Your task to perform on an android device: Open the phone app and click the voicemail tab. Image 0: 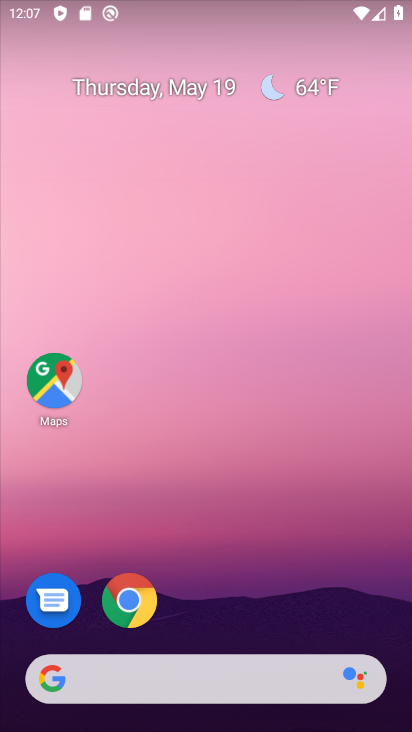
Step 0: drag from (222, 621) to (201, 49)
Your task to perform on an android device: Open the phone app and click the voicemail tab. Image 1: 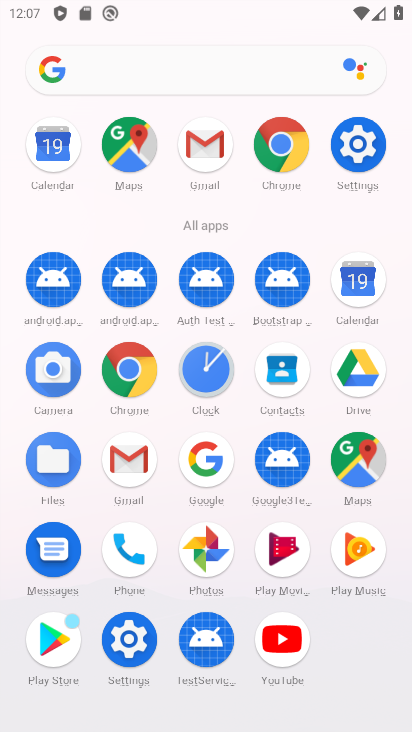
Step 1: click (357, 148)
Your task to perform on an android device: Open the phone app and click the voicemail tab. Image 2: 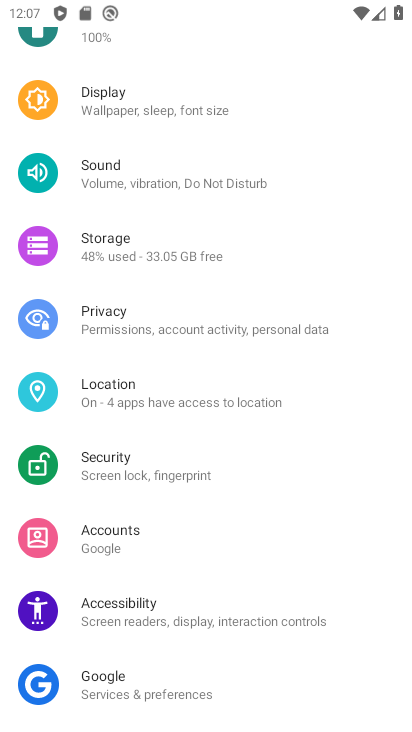
Step 2: press home button
Your task to perform on an android device: Open the phone app and click the voicemail tab. Image 3: 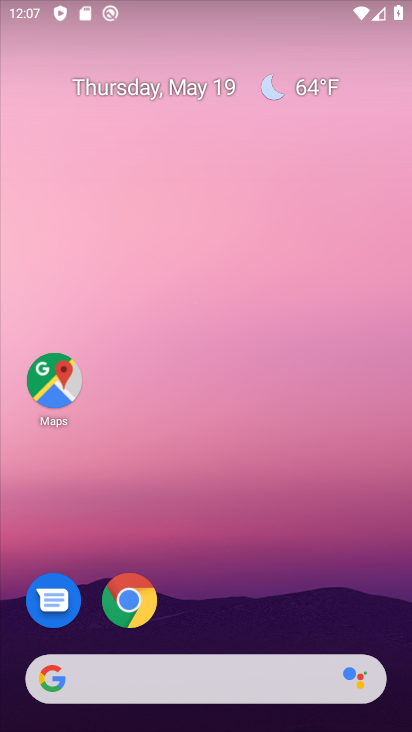
Step 3: drag from (196, 645) to (143, 39)
Your task to perform on an android device: Open the phone app and click the voicemail tab. Image 4: 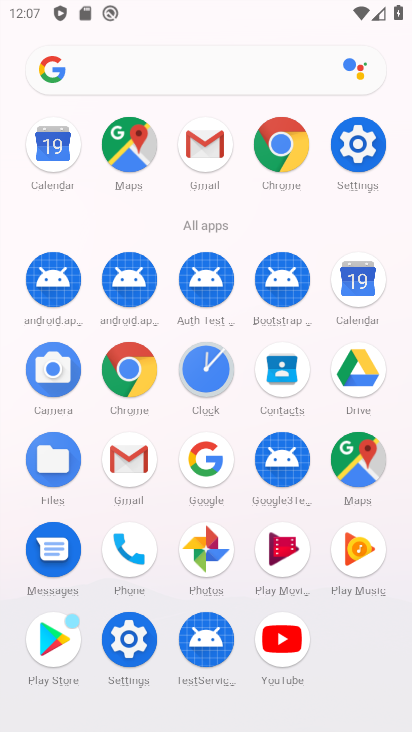
Step 4: click (129, 538)
Your task to perform on an android device: Open the phone app and click the voicemail tab. Image 5: 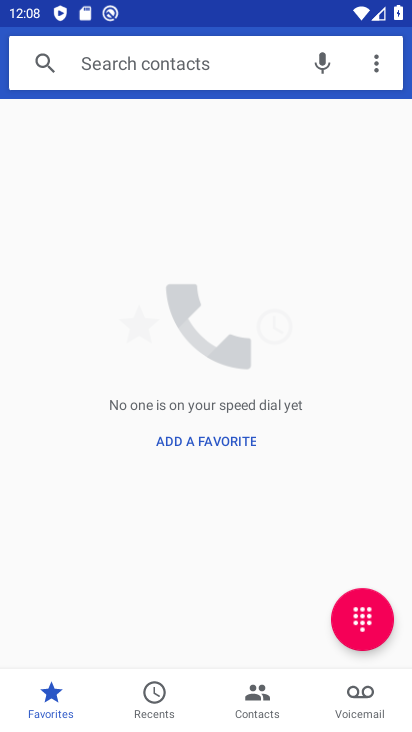
Step 5: click (356, 696)
Your task to perform on an android device: Open the phone app and click the voicemail tab. Image 6: 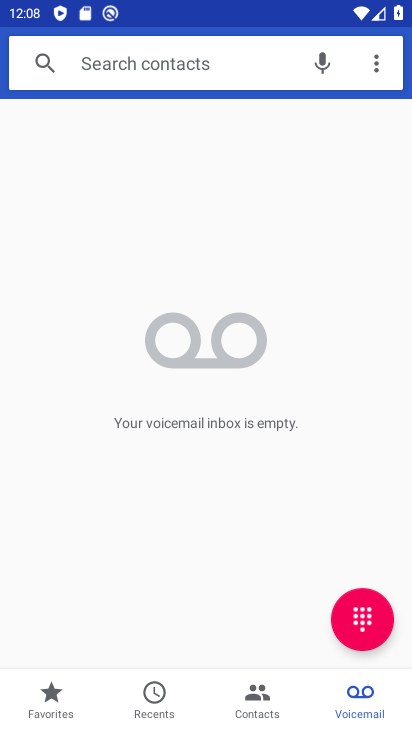
Step 6: task complete